Your task to perform on an android device: turn off data saver in the chrome app Image 0: 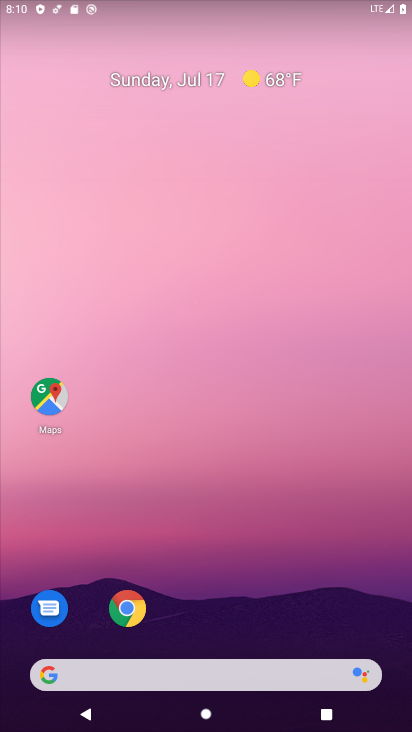
Step 0: click (134, 601)
Your task to perform on an android device: turn off data saver in the chrome app Image 1: 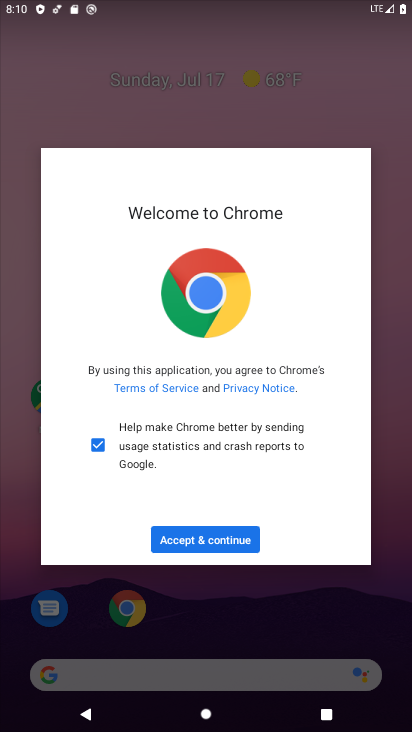
Step 1: click (218, 532)
Your task to perform on an android device: turn off data saver in the chrome app Image 2: 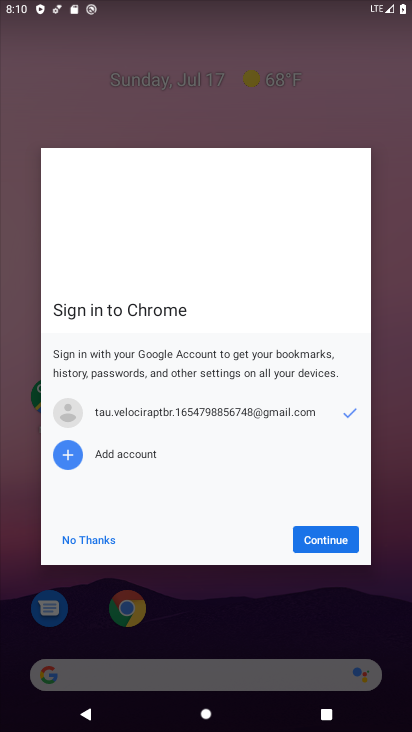
Step 2: click (334, 542)
Your task to perform on an android device: turn off data saver in the chrome app Image 3: 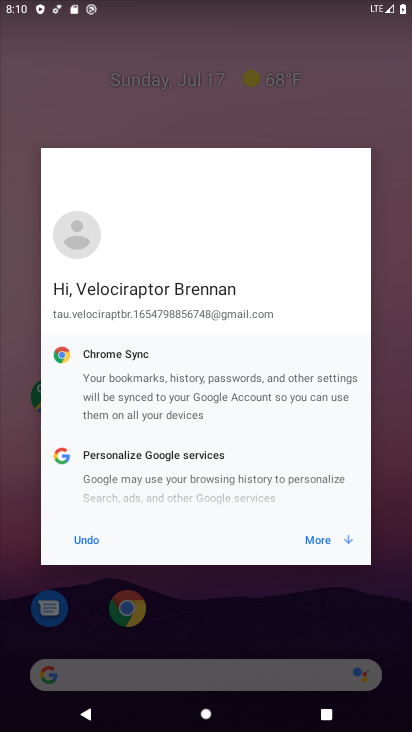
Step 3: click (334, 542)
Your task to perform on an android device: turn off data saver in the chrome app Image 4: 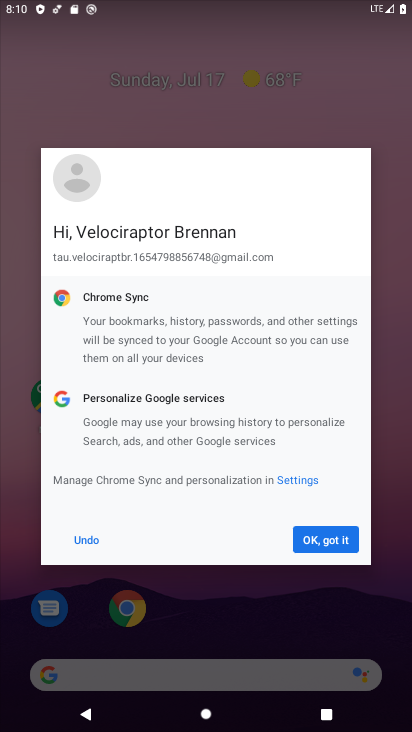
Step 4: click (334, 542)
Your task to perform on an android device: turn off data saver in the chrome app Image 5: 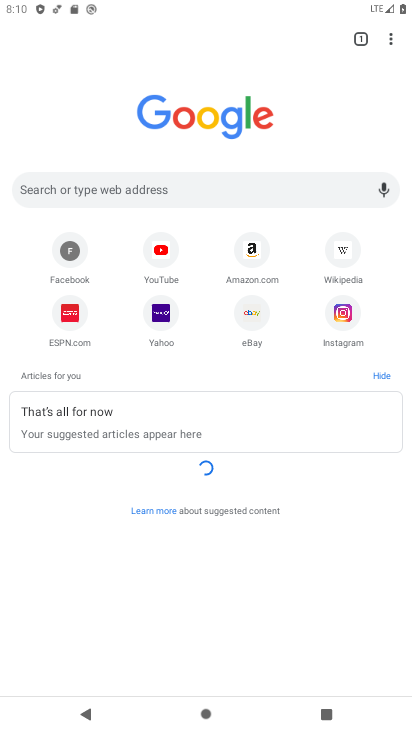
Step 5: click (388, 39)
Your task to perform on an android device: turn off data saver in the chrome app Image 6: 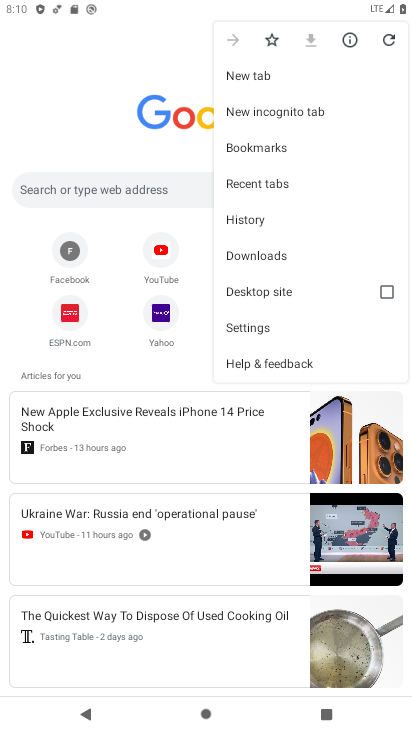
Step 6: click (256, 324)
Your task to perform on an android device: turn off data saver in the chrome app Image 7: 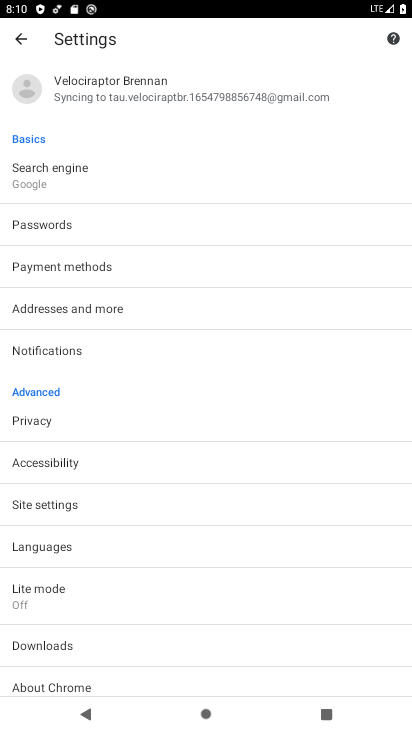
Step 7: click (72, 597)
Your task to perform on an android device: turn off data saver in the chrome app Image 8: 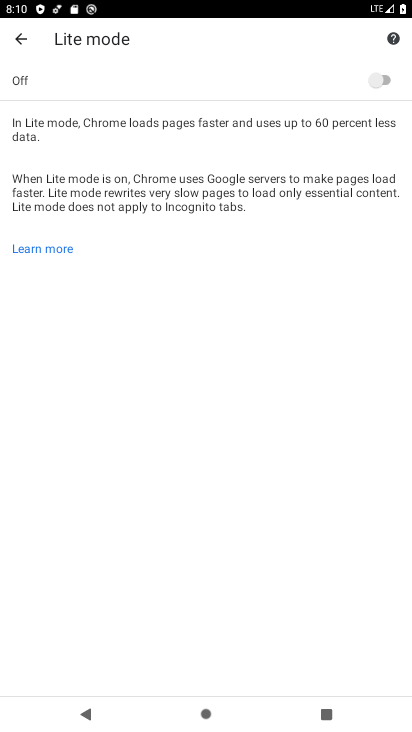
Step 8: task complete